Your task to perform on an android device: turn off wifi Image 0: 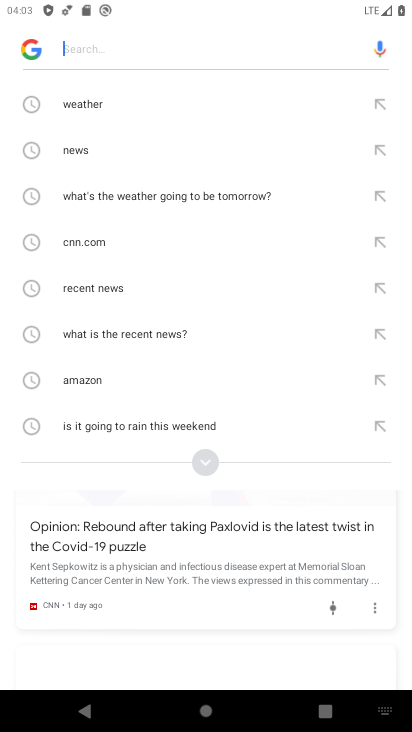
Step 0: press home button
Your task to perform on an android device: turn off wifi Image 1: 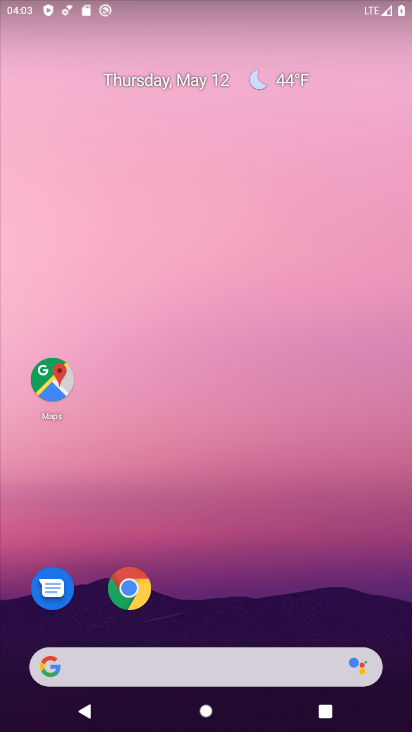
Step 1: drag from (176, 579) to (257, 218)
Your task to perform on an android device: turn off wifi Image 2: 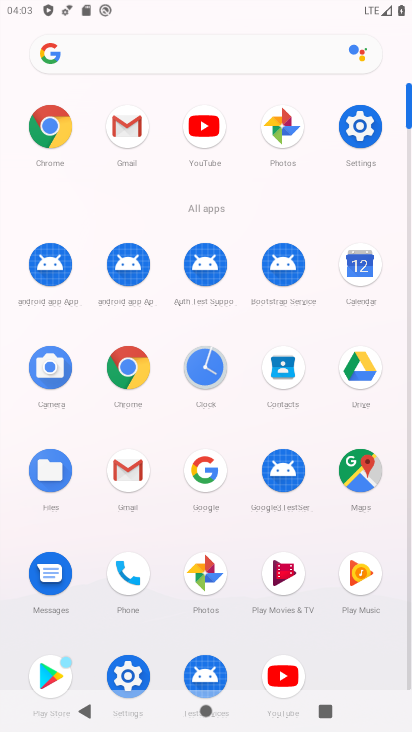
Step 2: click (351, 127)
Your task to perform on an android device: turn off wifi Image 3: 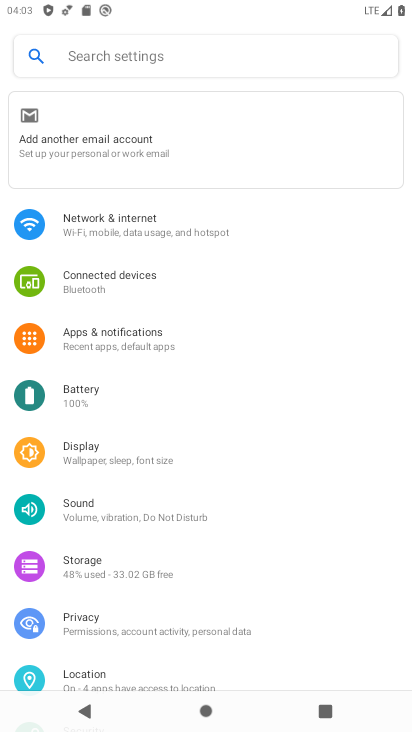
Step 3: click (141, 232)
Your task to perform on an android device: turn off wifi Image 4: 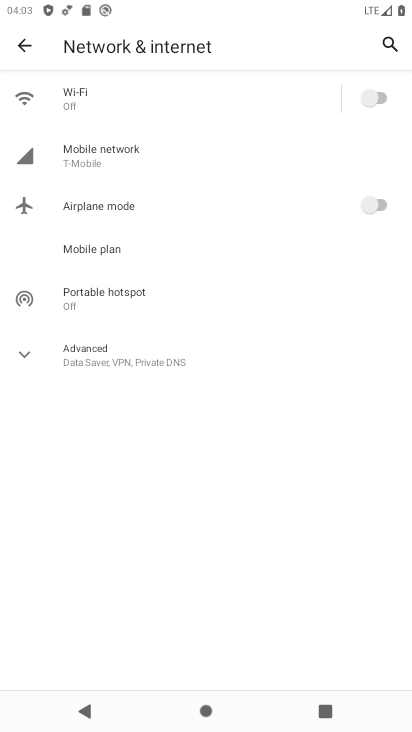
Step 4: click (182, 87)
Your task to perform on an android device: turn off wifi Image 5: 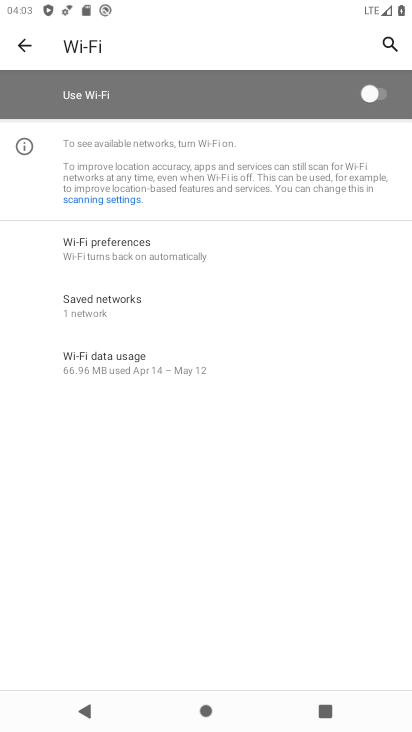
Step 5: task complete